Your task to perform on an android device: turn on sleep mode Image 0: 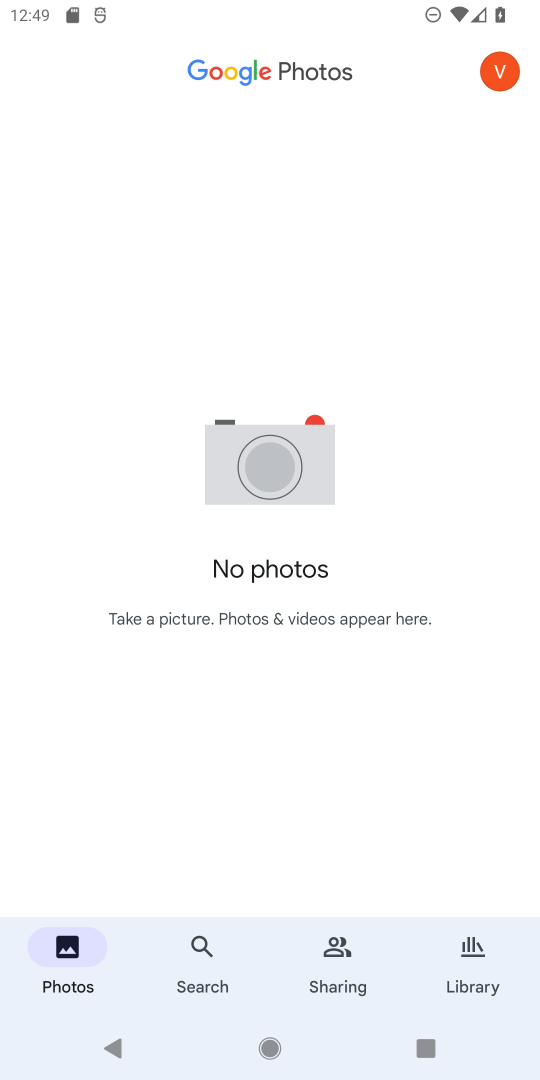
Step 0: press home button
Your task to perform on an android device: turn on sleep mode Image 1: 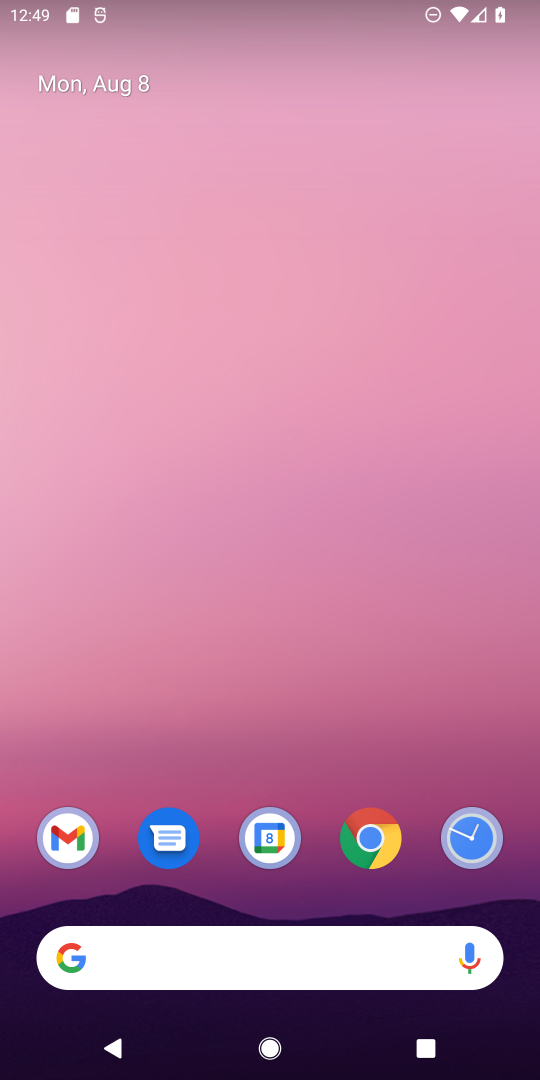
Step 1: drag from (333, 760) to (383, 111)
Your task to perform on an android device: turn on sleep mode Image 2: 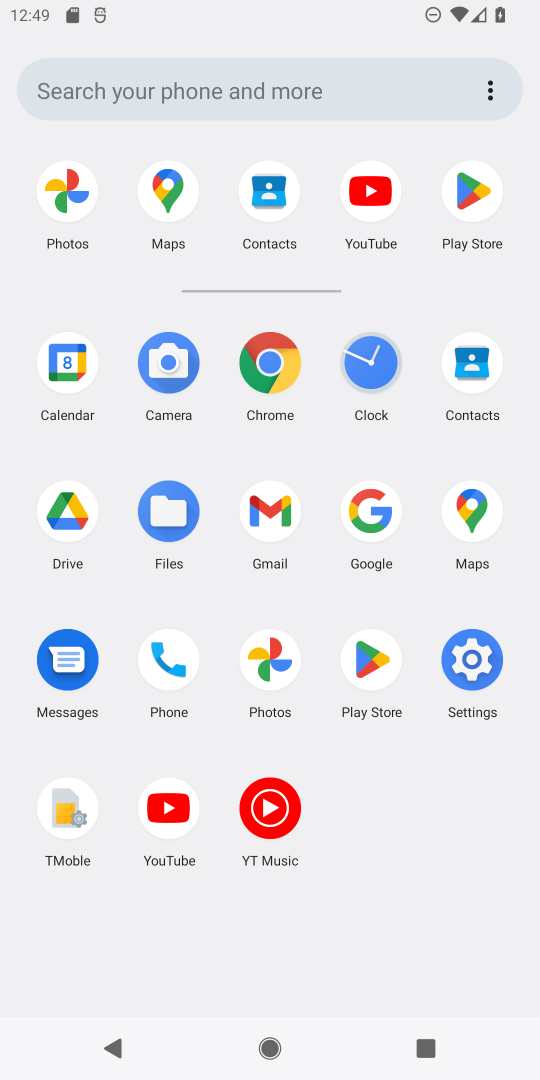
Step 2: click (465, 645)
Your task to perform on an android device: turn on sleep mode Image 3: 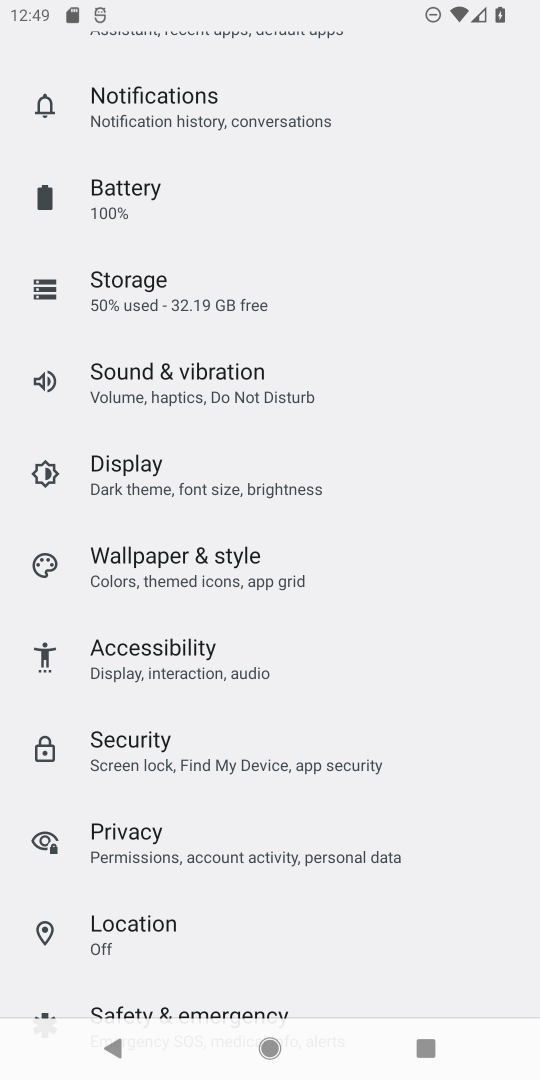
Step 3: click (188, 479)
Your task to perform on an android device: turn on sleep mode Image 4: 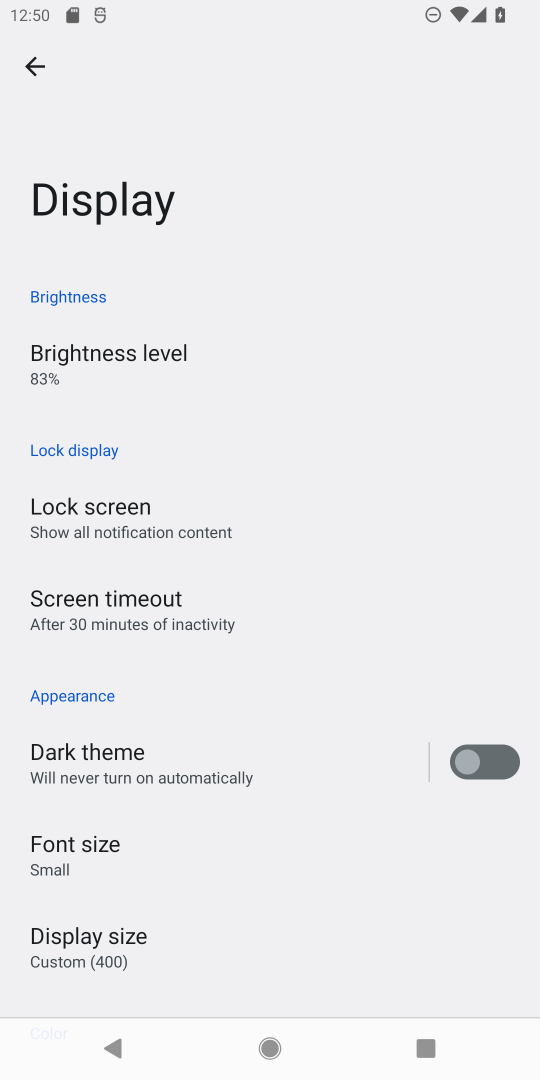
Step 4: task complete